Your task to perform on an android device: Is it going to rain today? Image 0: 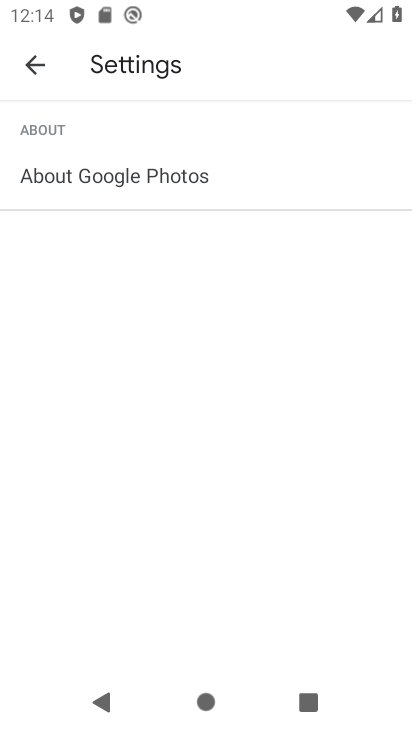
Step 0: press home button
Your task to perform on an android device: Is it going to rain today? Image 1: 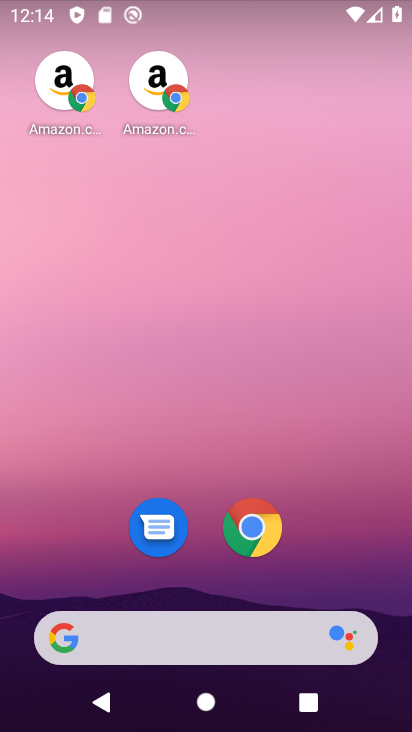
Step 1: drag from (13, 416) to (405, 378)
Your task to perform on an android device: Is it going to rain today? Image 2: 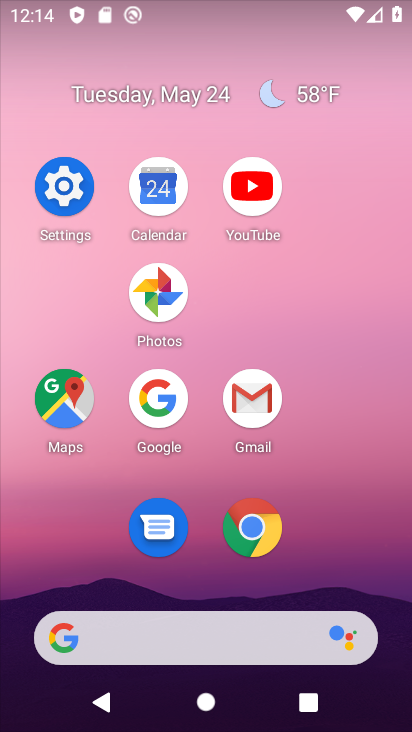
Step 2: click (168, 400)
Your task to perform on an android device: Is it going to rain today? Image 3: 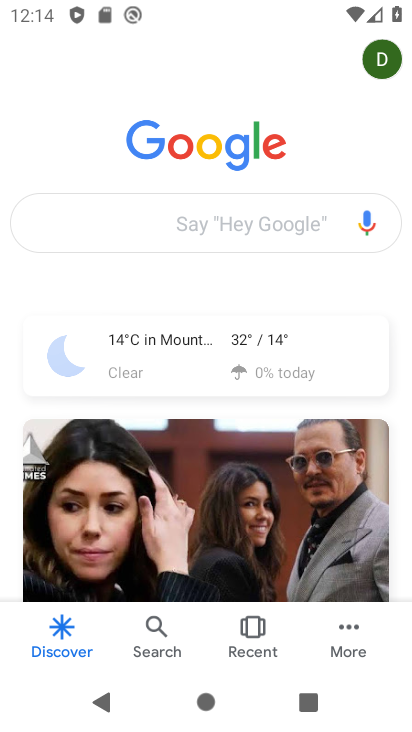
Step 3: click (144, 366)
Your task to perform on an android device: Is it going to rain today? Image 4: 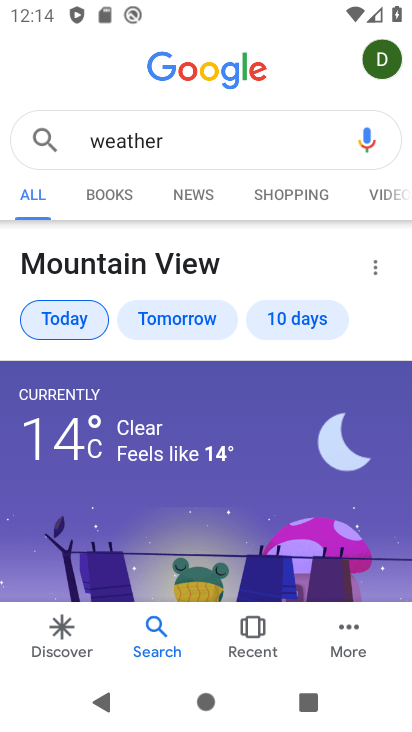
Step 4: task complete